Your task to perform on an android device: What's the news in Colombia? Image 0: 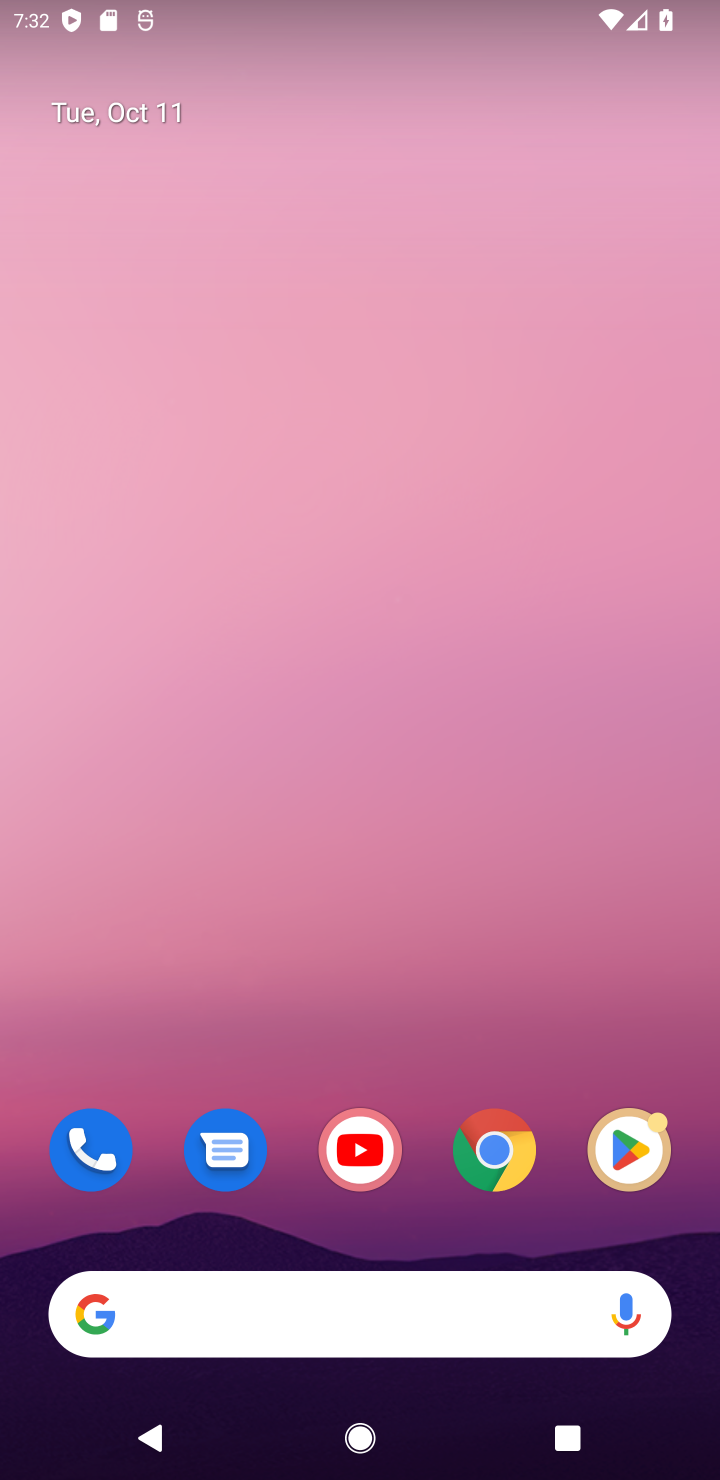
Step 0: click (480, 1146)
Your task to perform on an android device: What's the news in Colombia? Image 1: 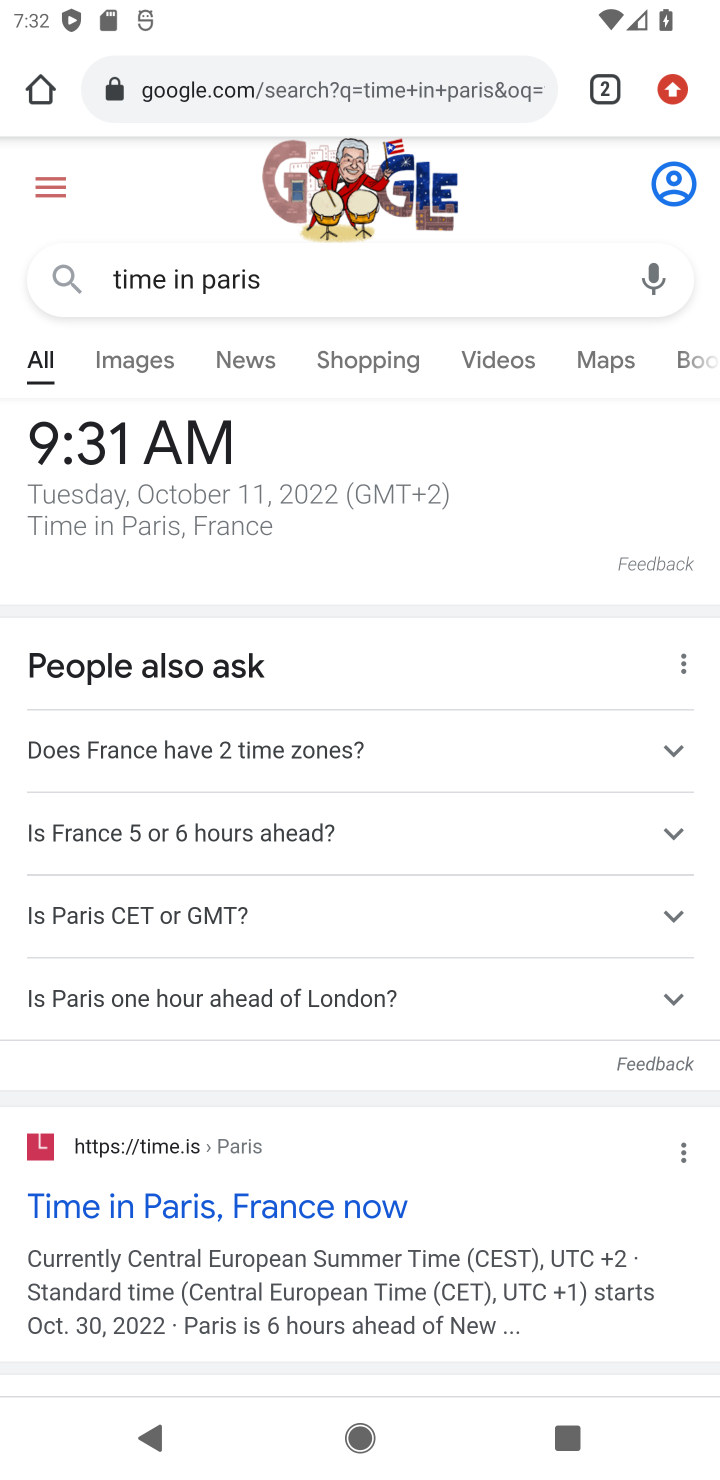
Step 1: click (264, 271)
Your task to perform on an android device: What's the news in Colombia? Image 2: 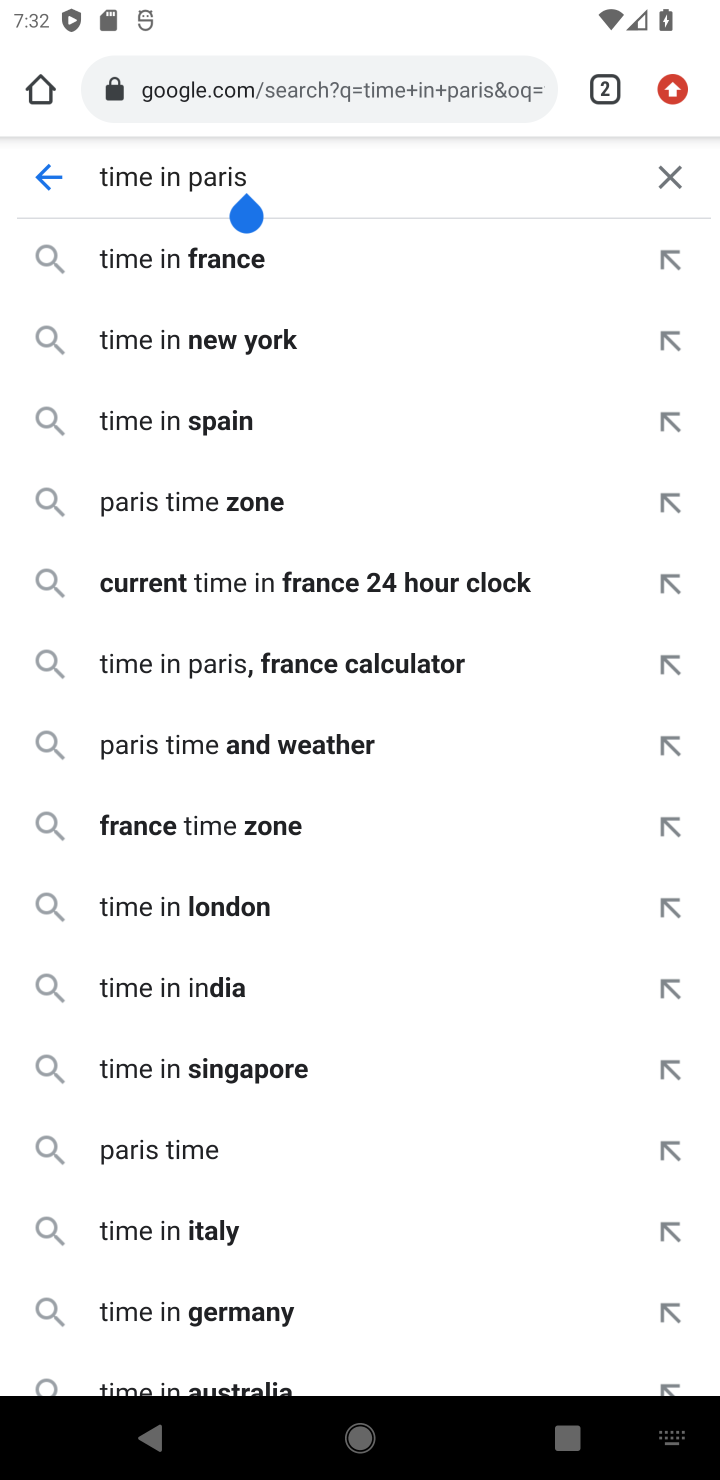
Step 2: click (666, 163)
Your task to perform on an android device: What's the news in Colombia? Image 3: 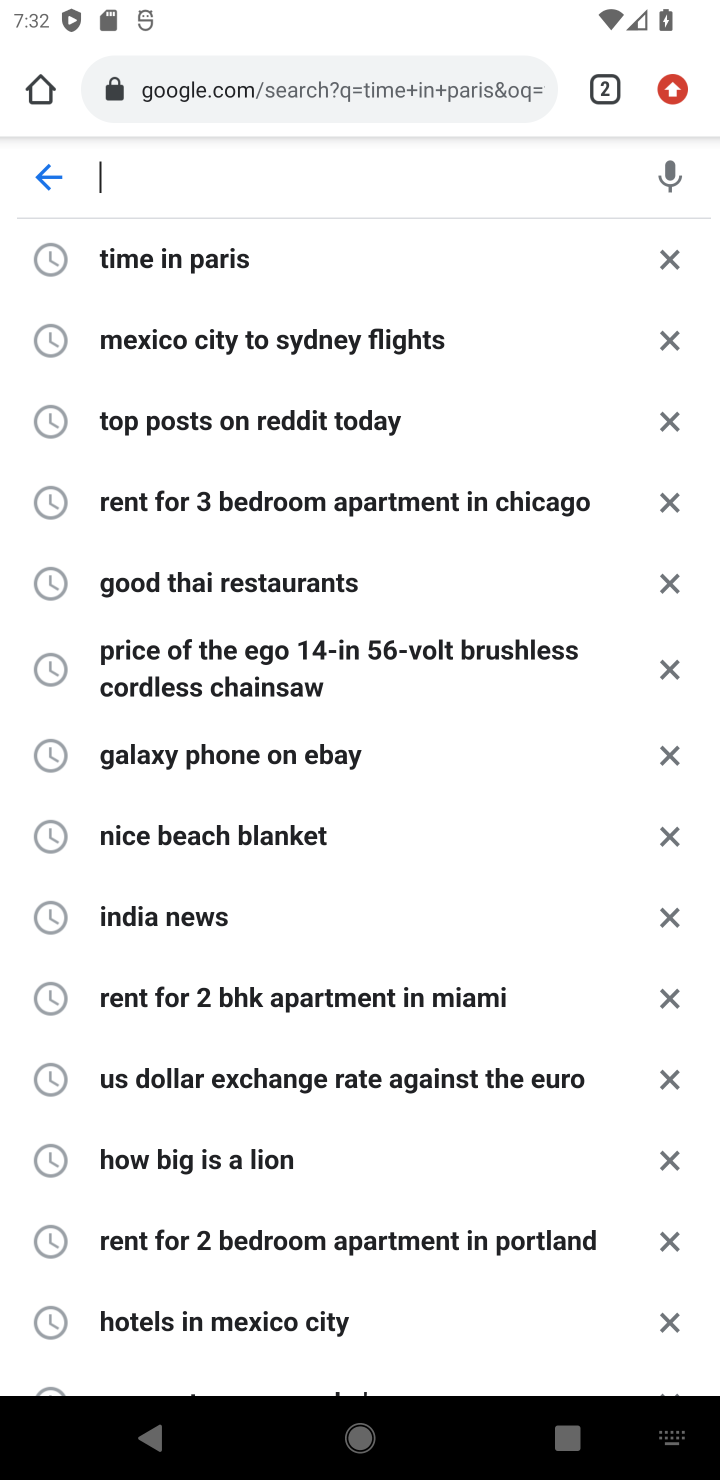
Step 3: type "Colombia"
Your task to perform on an android device: What's the news in Colombia? Image 4: 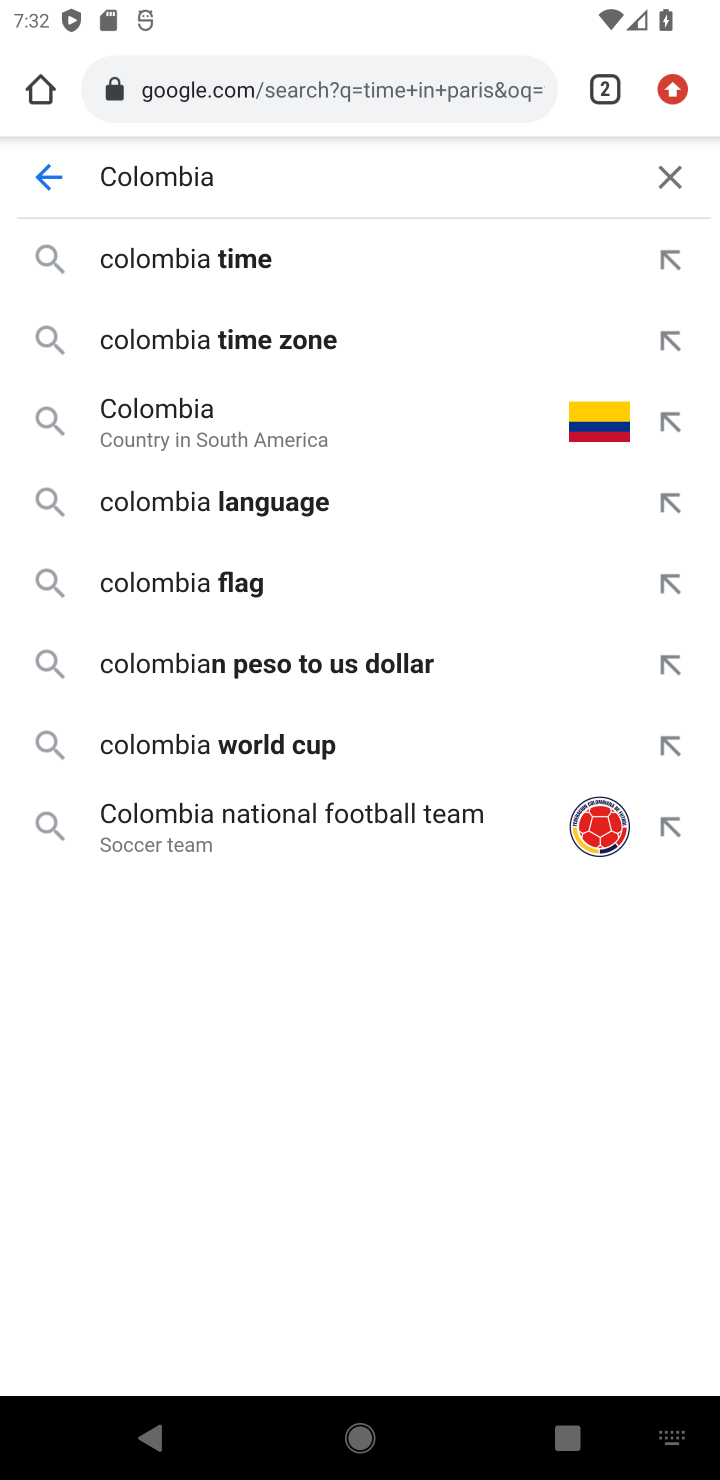
Step 4: click (162, 413)
Your task to perform on an android device: What's the news in Colombia? Image 5: 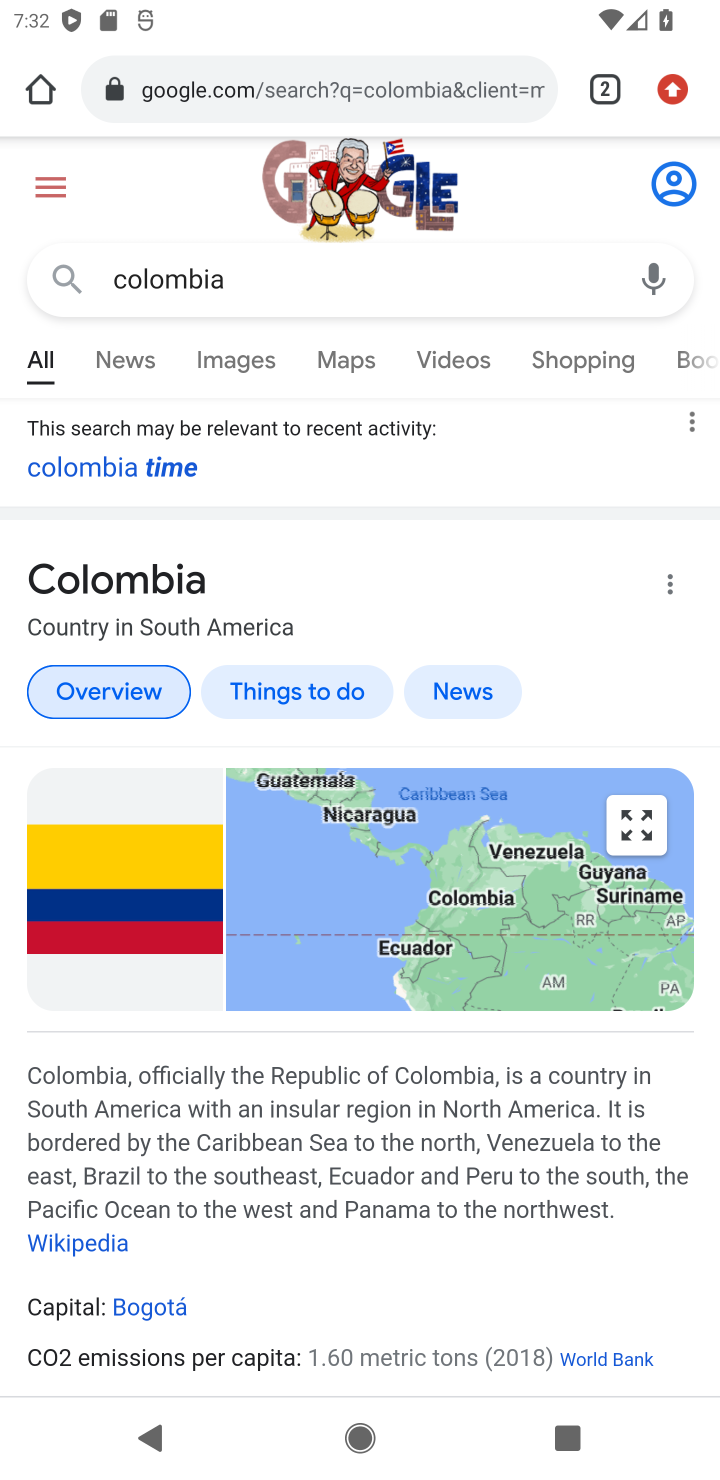
Step 5: click (104, 368)
Your task to perform on an android device: What's the news in Colombia? Image 6: 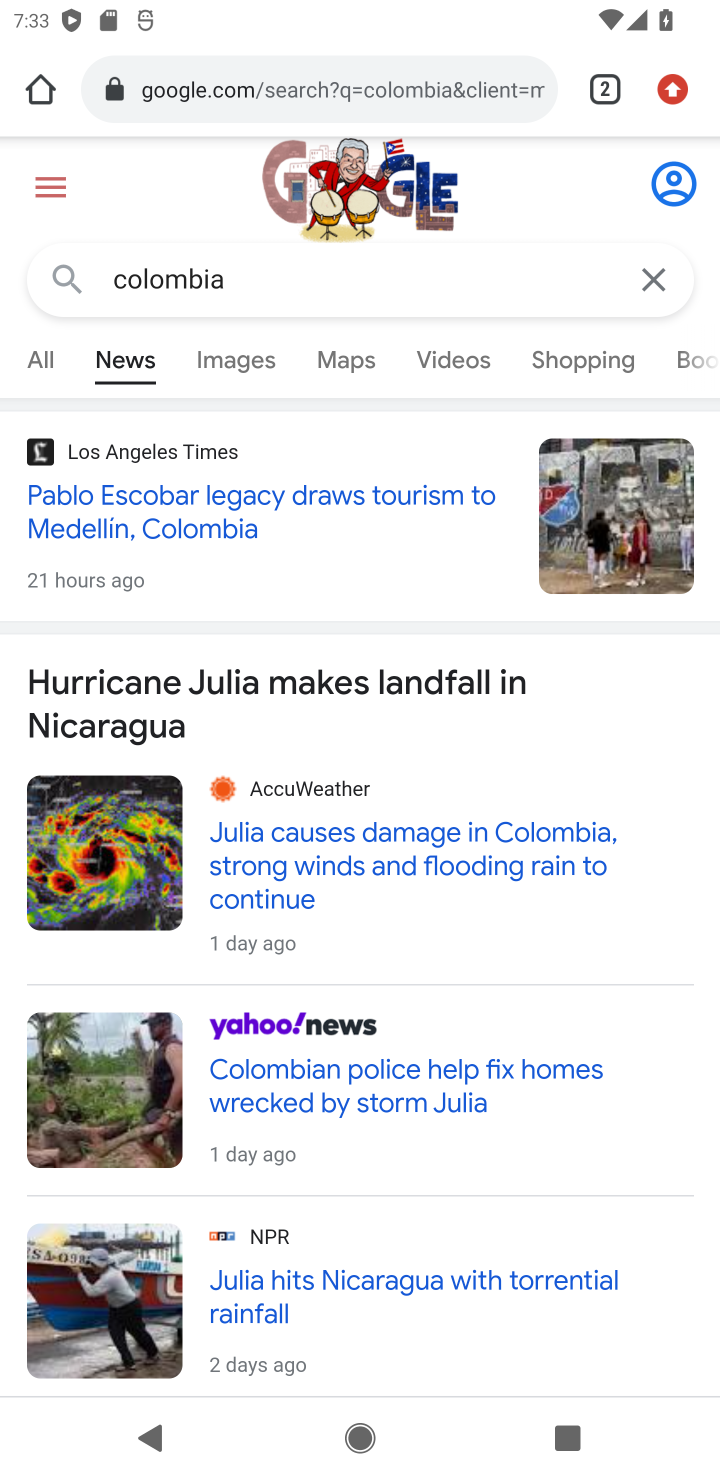
Step 6: click (123, 361)
Your task to perform on an android device: What's the news in Colombia? Image 7: 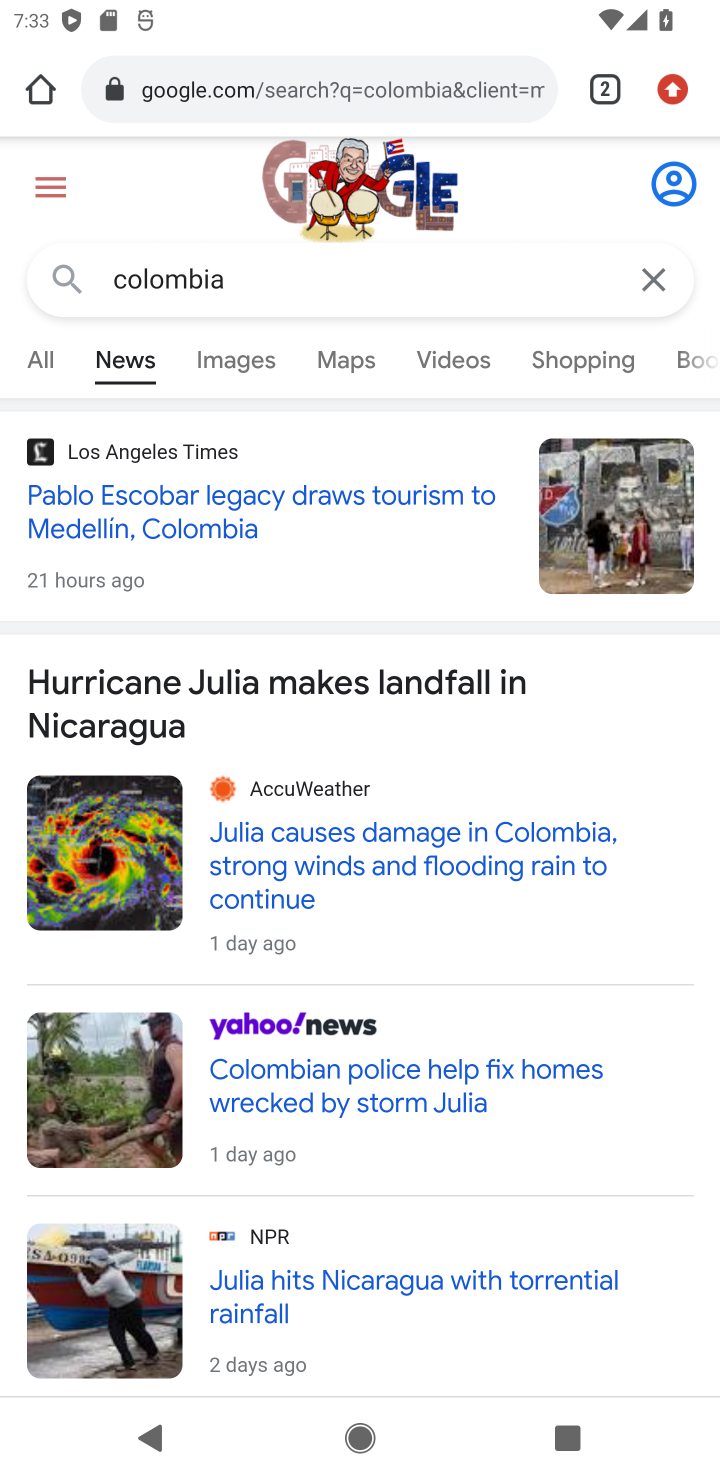
Step 7: click (224, 529)
Your task to perform on an android device: What's the news in Colombia? Image 8: 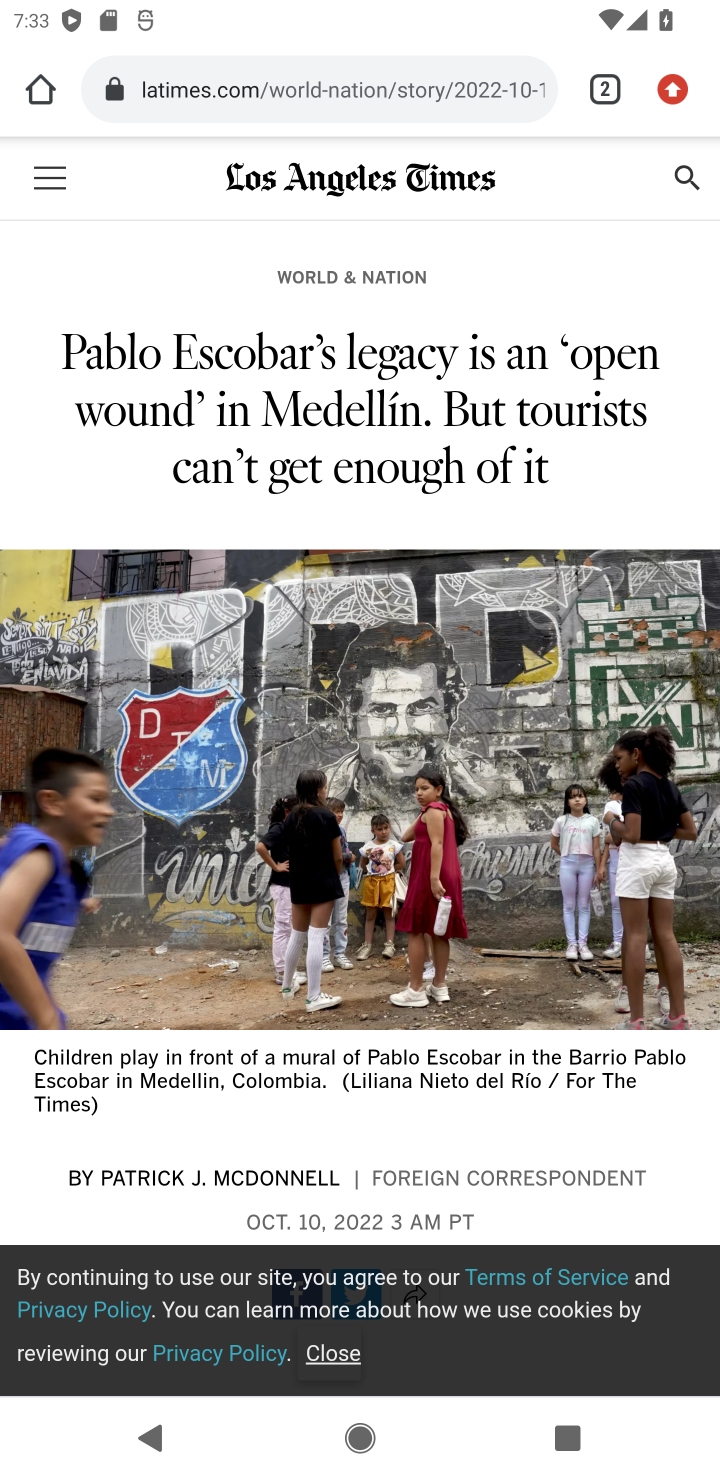
Step 8: task complete